Your task to perform on an android device: toggle notifications settings in the gmail app Image 0: 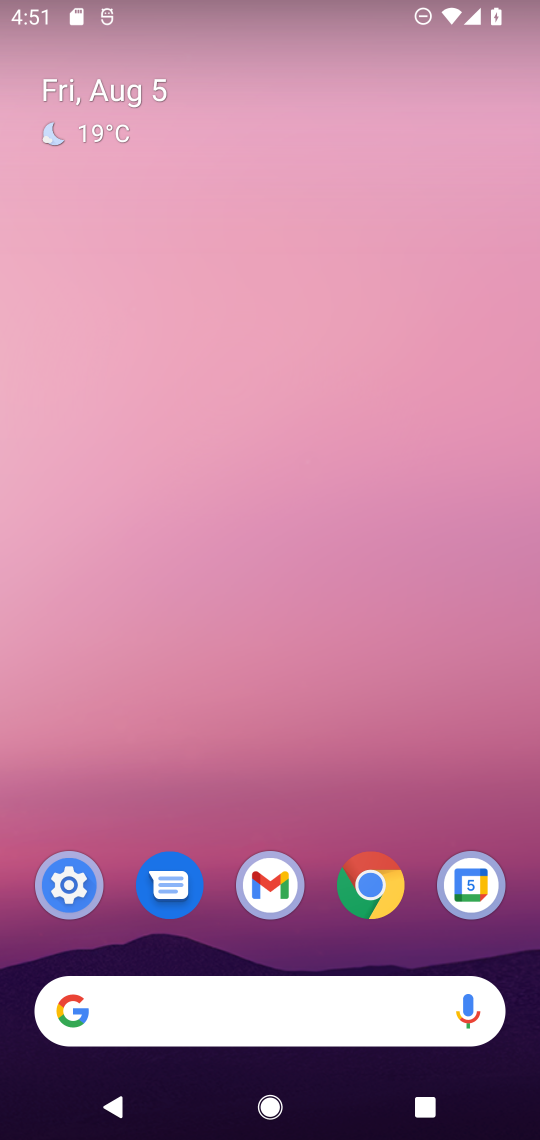
Step 0: drag from (325, 877) to (315, 127)
Your task to perform on an android device: toggle notifications settings in the gmail app Image 1: 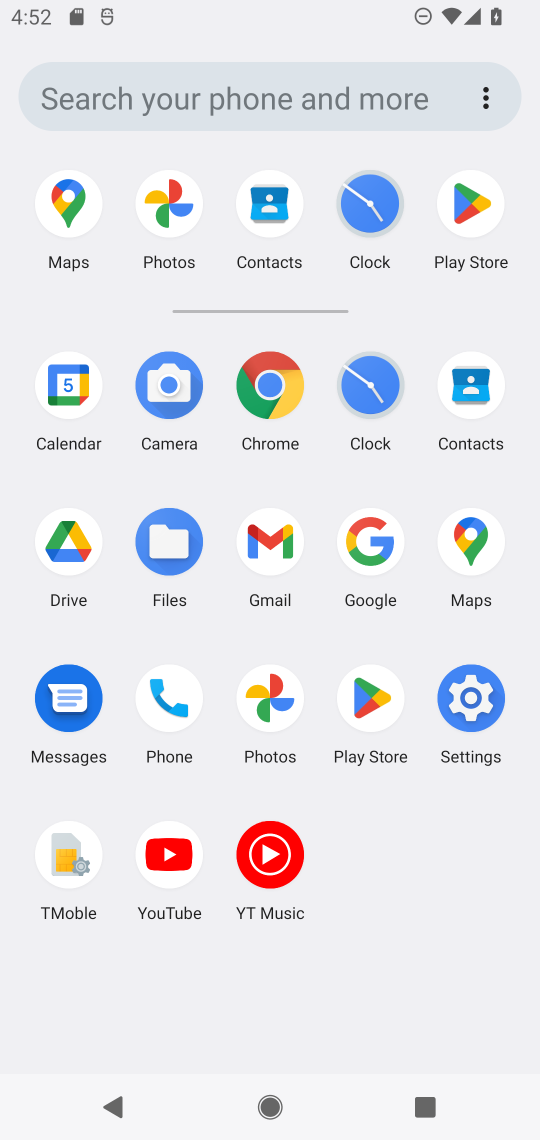
Step 1: click (257, 549)
Your task to perform on an android device: toggle notifications settings in the gmail app Image 2: 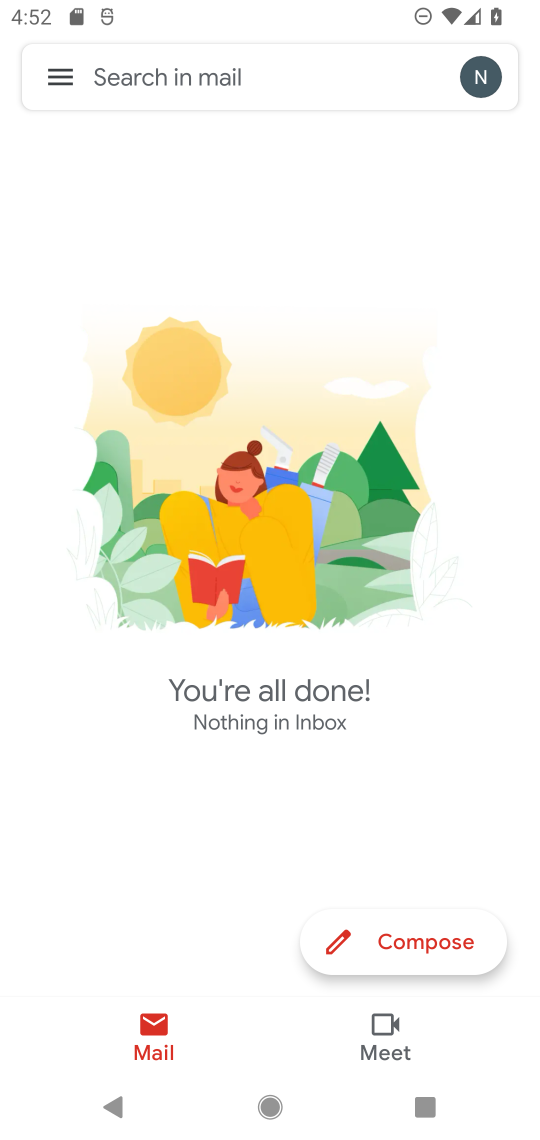
Step 2: click (57, 70)
Your task to perform on an android device: toggle notifications settings in the gmail app Image 3: 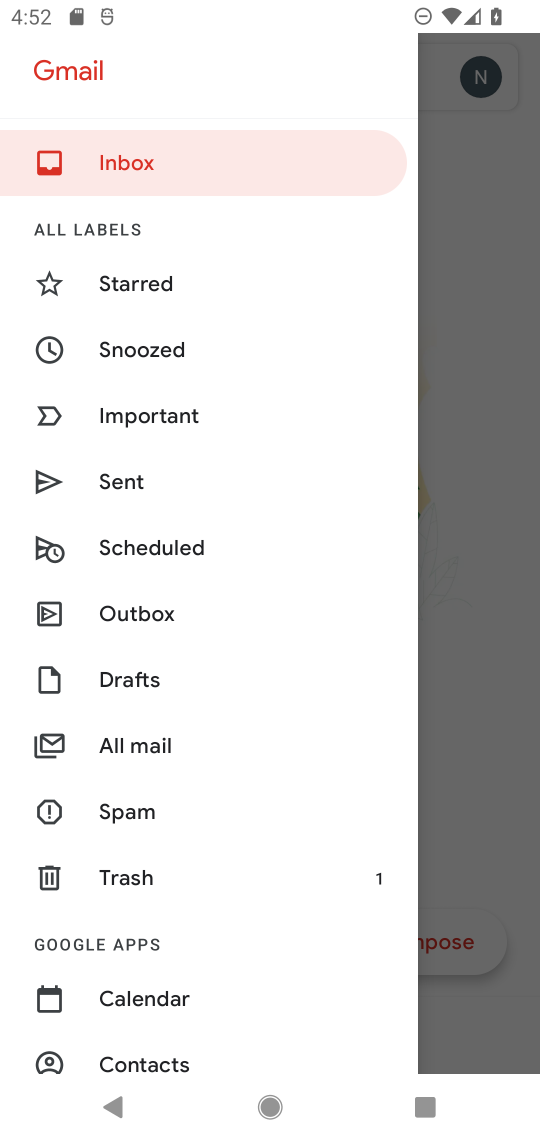
Step 3: drag from (110, 1013) to (128, 470)
Your task to perform on an android device: toggle notifications settings in the gmail app Image 4: 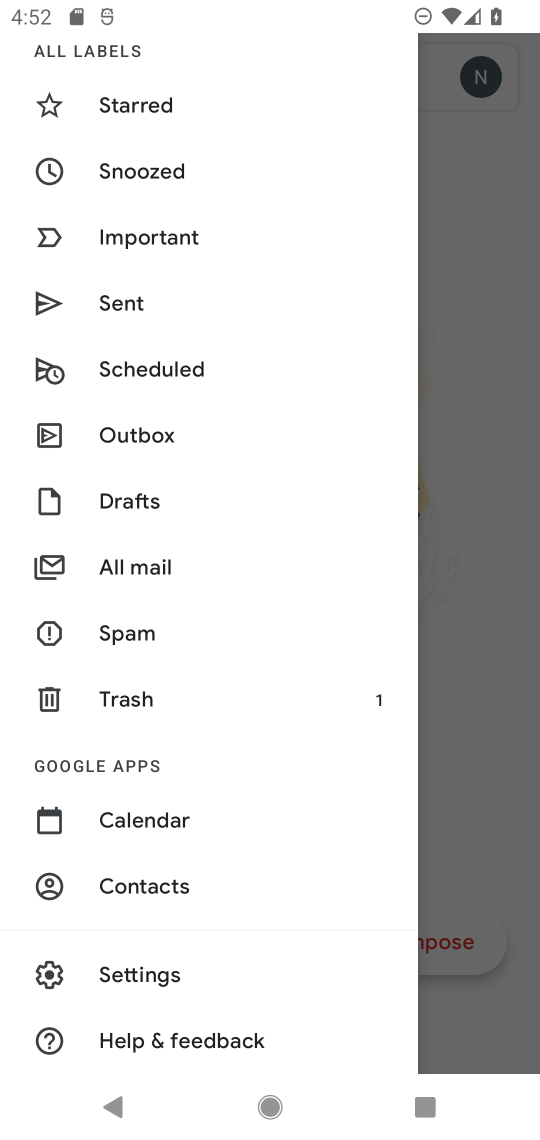
Step 4: click (138, 969)
Your task to perform on an android device: toggle notifications settings in the gmail app Image 5: 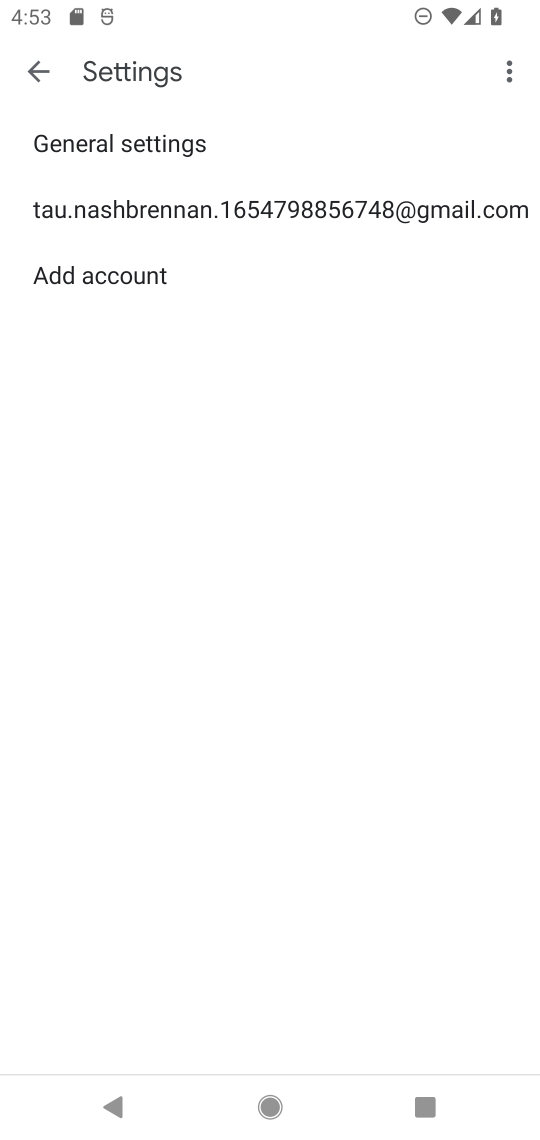
Step 5: click (339, 208)
Your task to perform on an android device: toggle notifications settings in the gmail app Image 6: 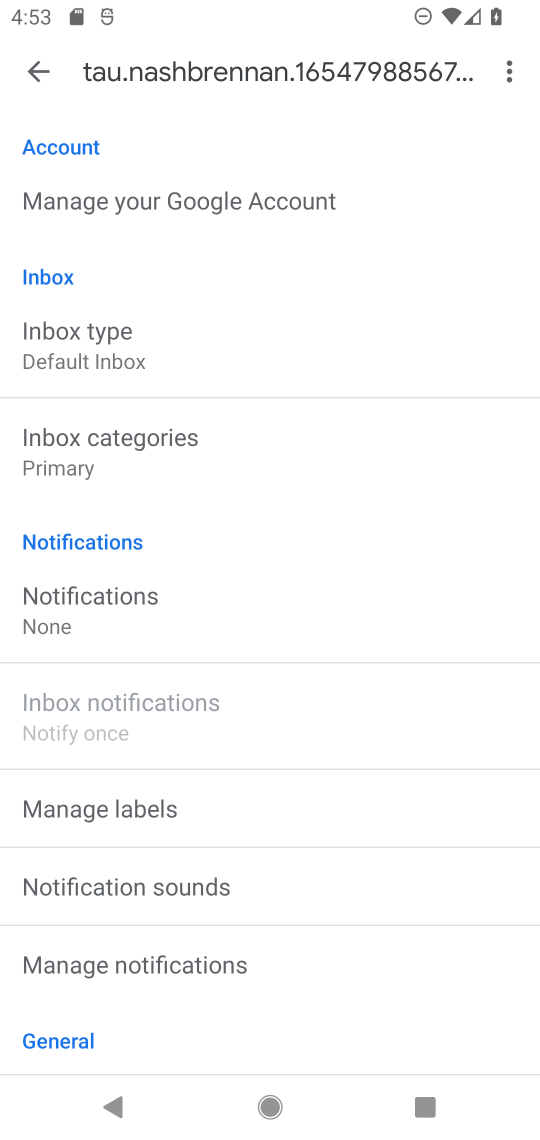
Step 6: drag from (183, 843) to (180, 659)
Your task to perform on an android device: toggle notifications settings in the gmail app Image 7: 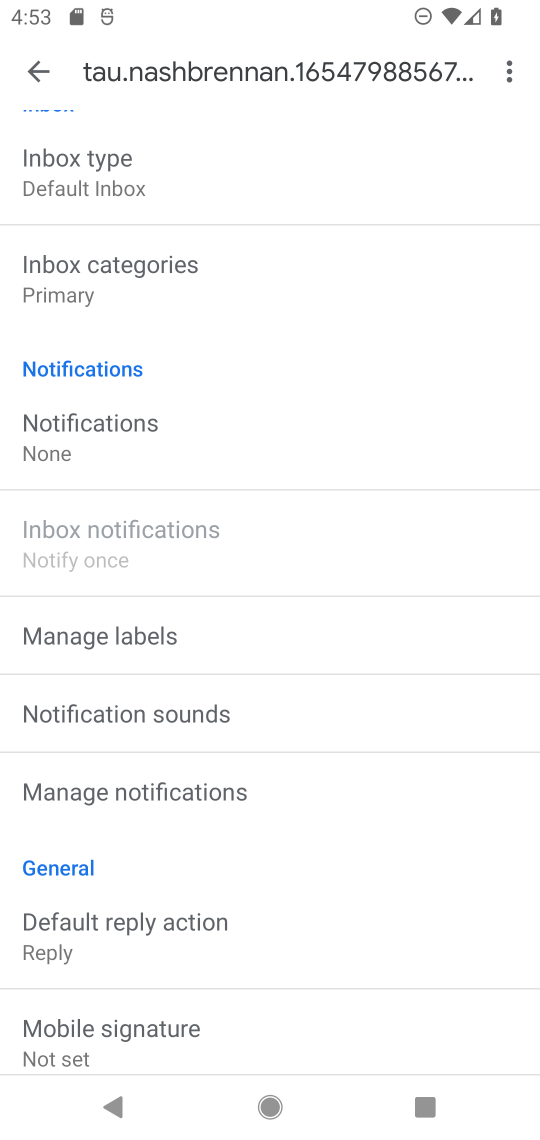
Step 7: click (82, 427)
Your task to perform on an android device: toggle notifications settings in the gmail app Image 8: 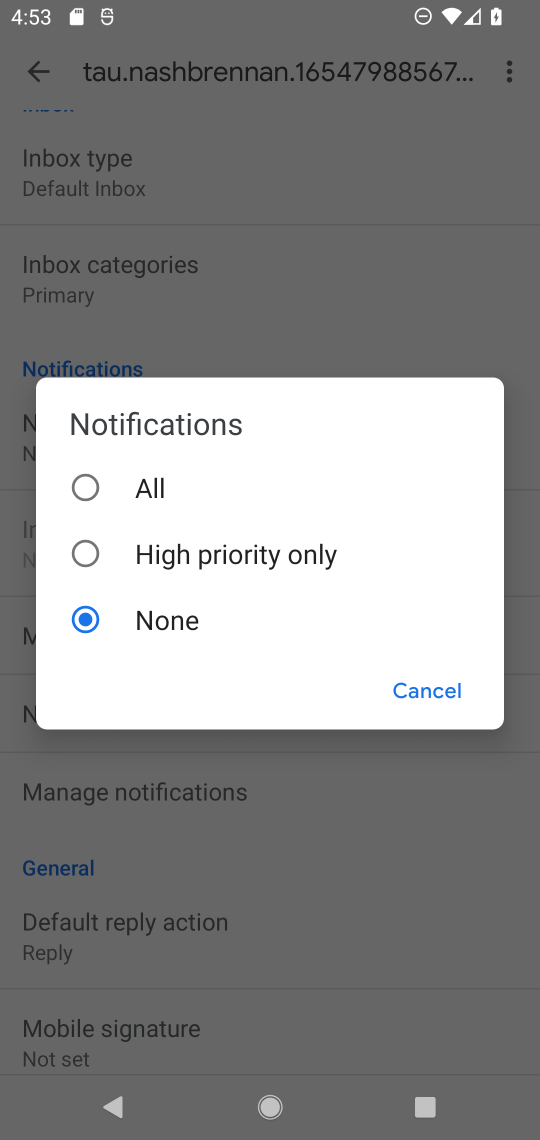
Step 8: click (87, 486)
Your task to perform on an android device: toggle notifications settings in the gmail app Image 9: 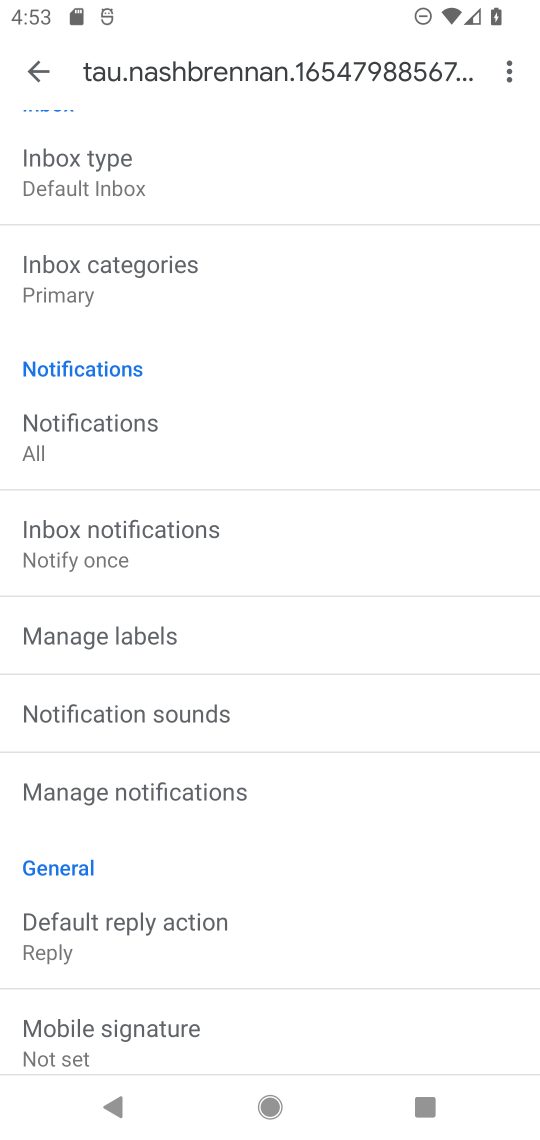
Step 9: task complete